Your task to perform on an android device: turn off translation in the chrome app Image 0: 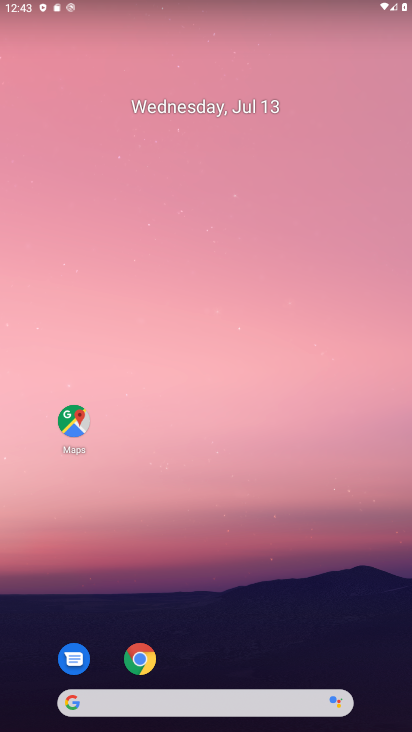
Step 0: click (225, 145)
Your task to perform on an android device: turn off translation in the chrome app Image 1: 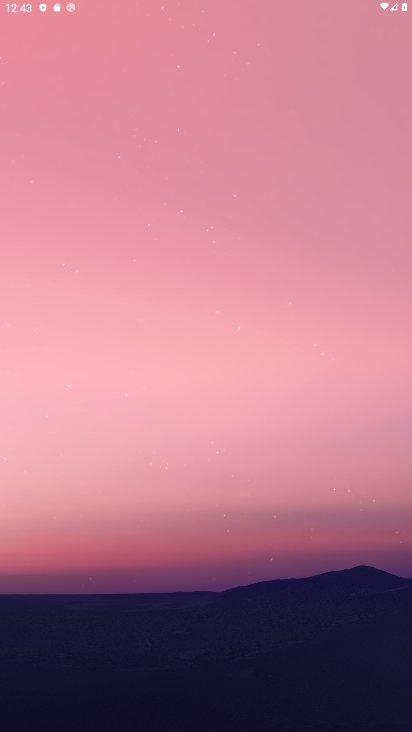
Step 1: drag from (183, 624) to (254, 190)
Your task to perform on an android device: turn off translation in the chrome app Image 2: 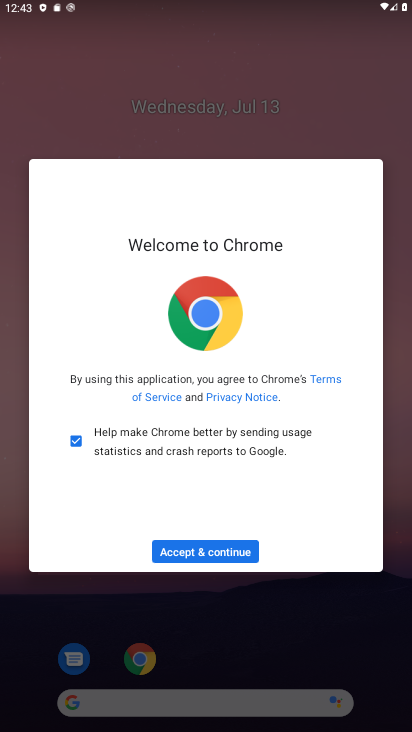
Step 2: press home button
Your task to perform on an android device: turn off translation in the chrome app Image 3: 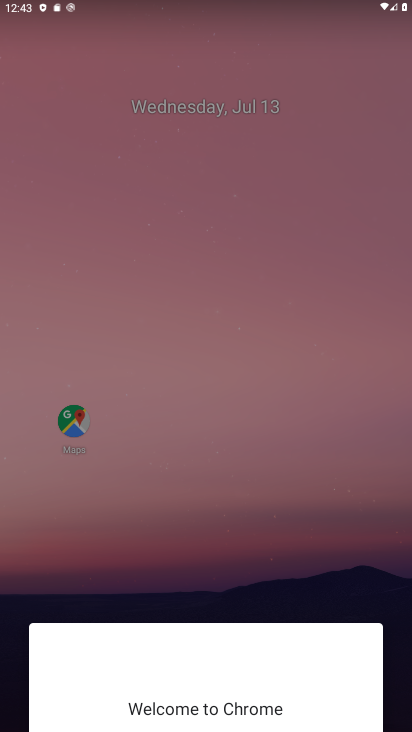
Step 3: drag from (243, 366) to (294, 175)
Your task to perform on an android device: turn off translation in the chrome app Image 4: 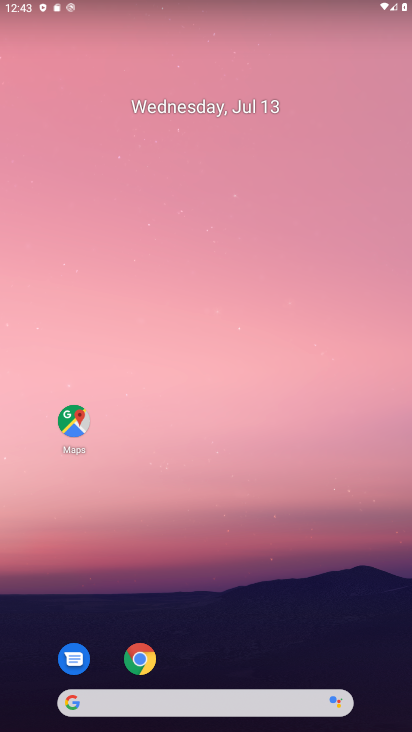
Step 4: drag from (171, 653) to (211, 9)
Your task to perform on an android device: turn off translation in the chrome app Image 5: 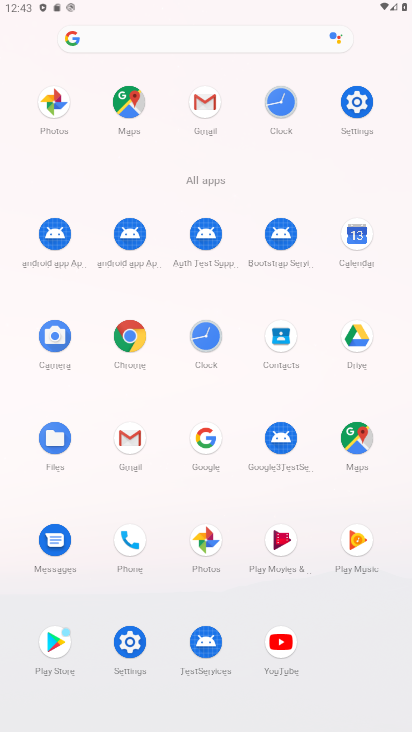
Step 5: click (130, 337)
Your task to perform on an android device: turn off translation in the chrome app Image 6: 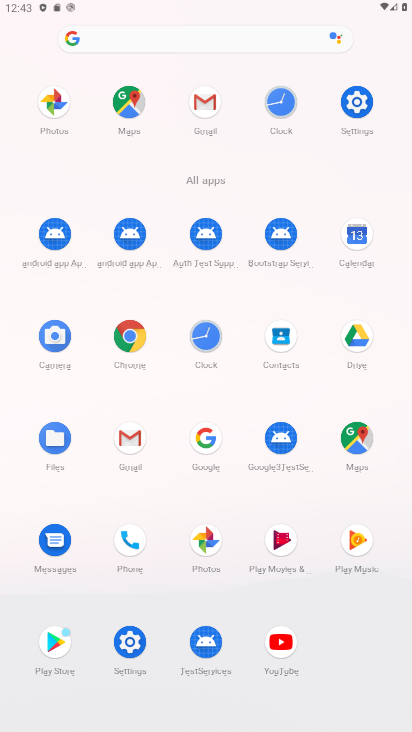
Step 6: click (129, 336)
Your task to perform on an android device: turn off translation in the chrome app Image 7: 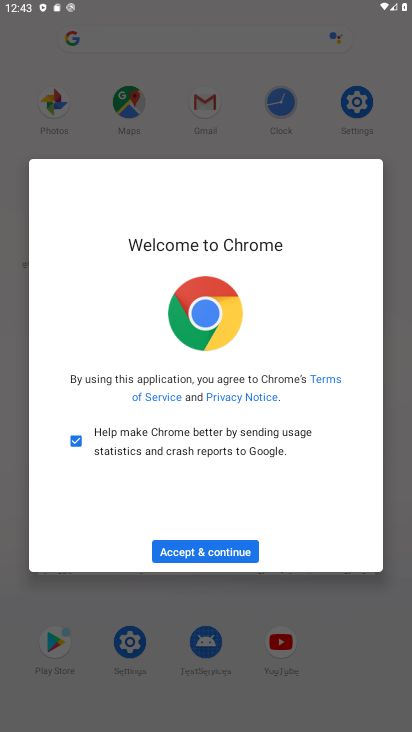
Step 7: click (199, 543)
Your task to perform on an android device: turn off translation in the chrome app Image 8: 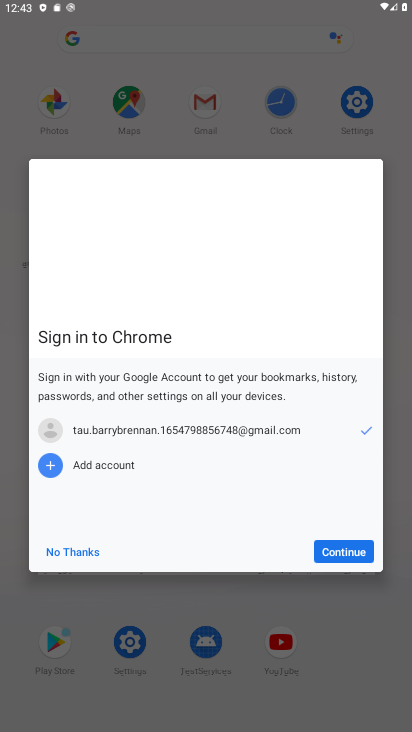
Step 8: click (348, 558)
Your task to perform on an android device: turn off translation in the chrome app Image 9: 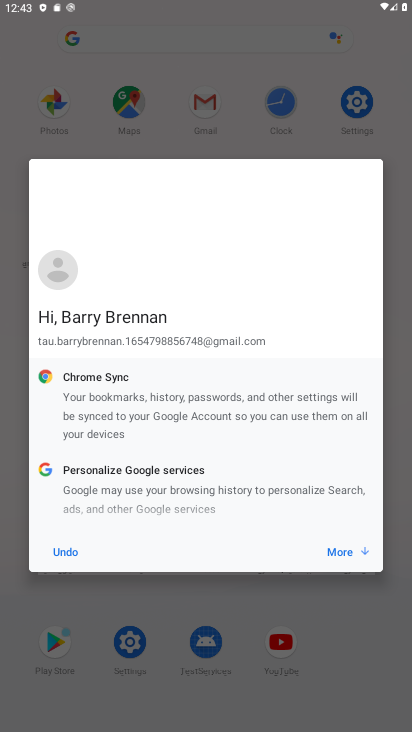
Step 9: click (335, 559)
Your task to perform on an android device: turn off translation in the chrome app Image 10: 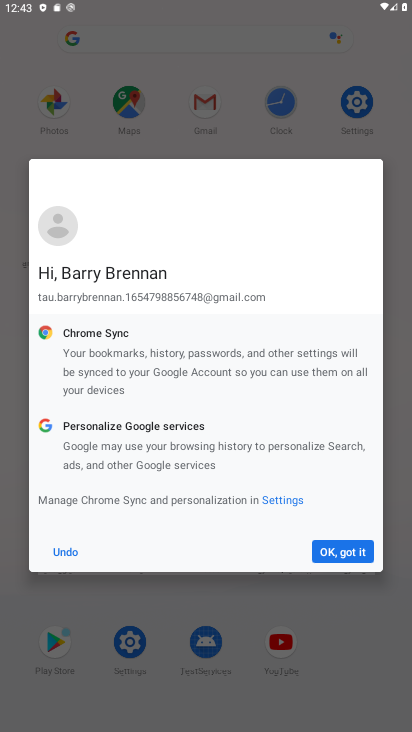
Step 10: click (338, 555)
Your task to perform on an android device: turn off translation in the chrome app Image 11: 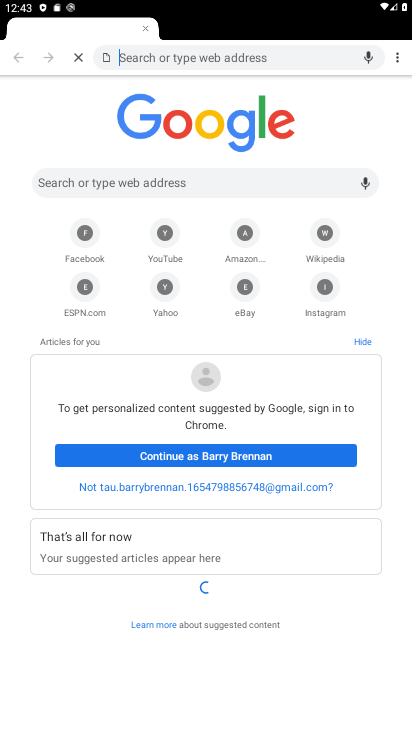
Step 11: drag from (210, 597) to (304, 297)
Your task to perform on an android device: turn off translation in the chrome app Image 12: 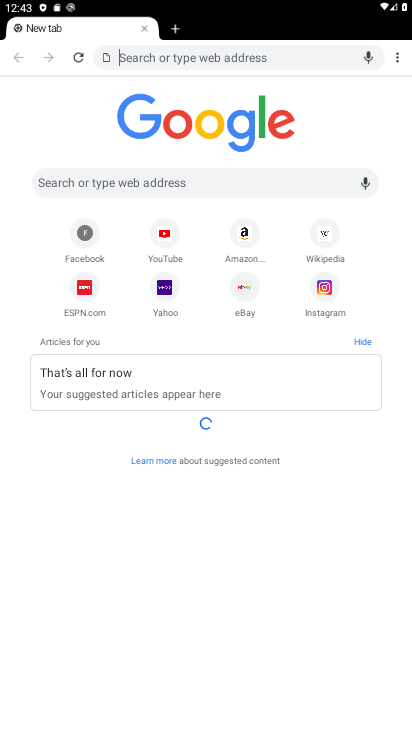
Step 12: click (400, 49)
Your task to perform on an android device: turn off translation in the chrome app Image 13: 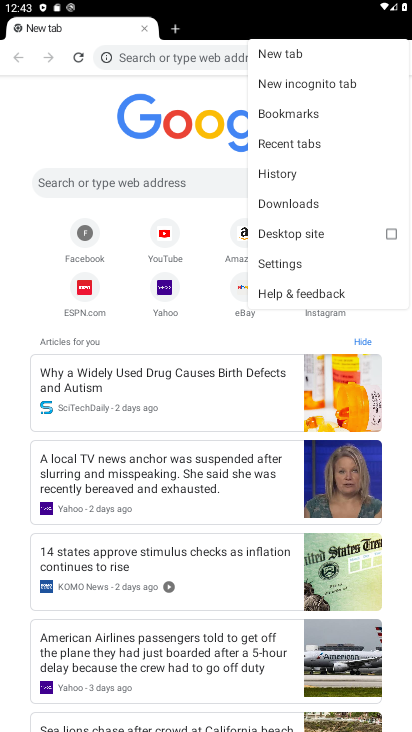
Step 13: click (288, 261)
Your task to perform on an android device: turn off translation in the chrome app Image 14: 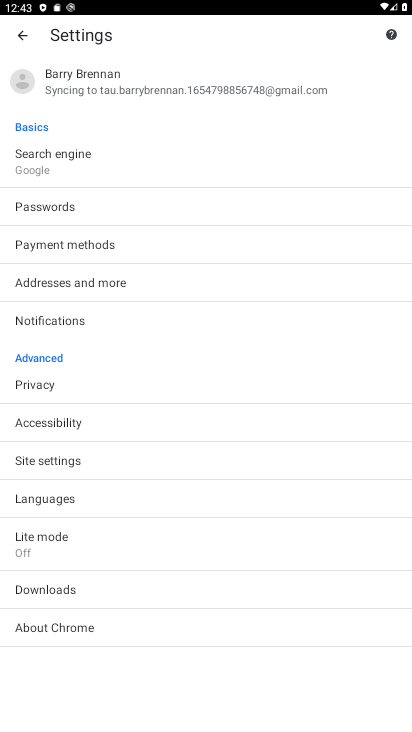
Step 14: click (64, 451)
Your task to perform on an android device: turn off translation in the chrome app Image 15: 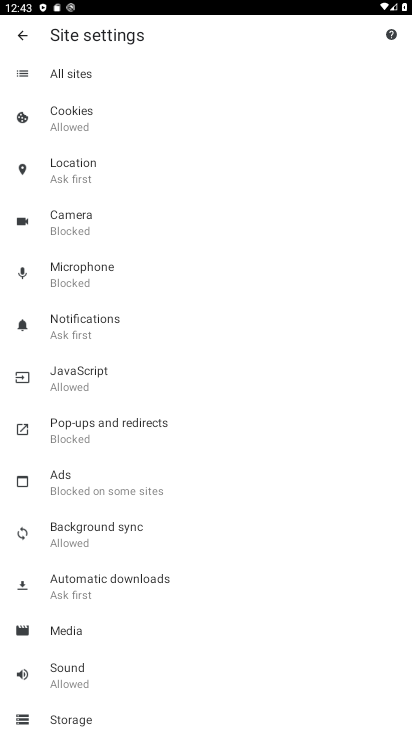
Step 15: click (28, 36)
Your task to perform on an android device: turn off translation in the chrome app Image 16: 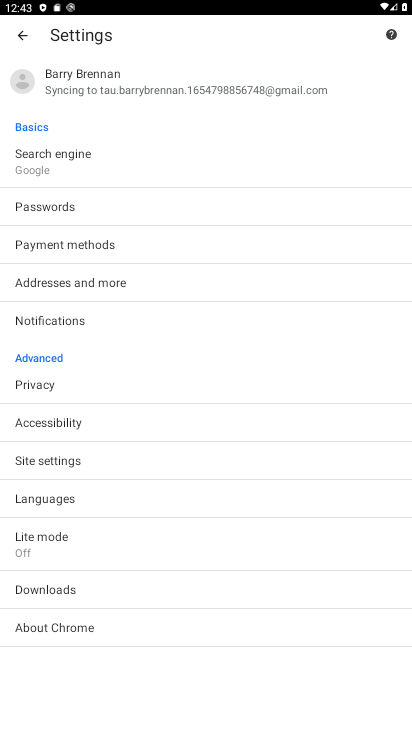
Step 16: click (58, 500)
Your task to perform on an android device: turn off translation in the chrome app Image 17: 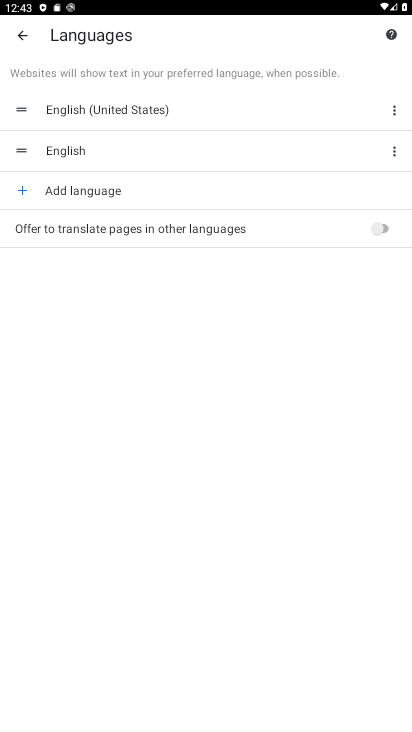
Step 17: task complete